Your task to perform on an android device: turn on showing notifications on the lock screen Image 0: 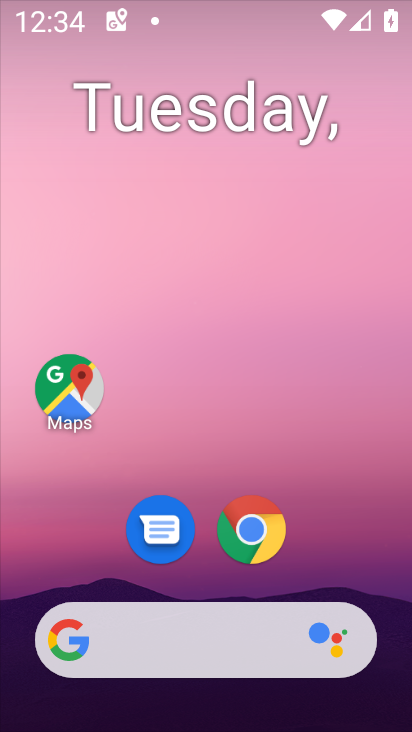
Step 0: drag from (203, 578) to (271, 84)
Your task to perform on an android device: turn on showing notifications on the lock screen Image 1: 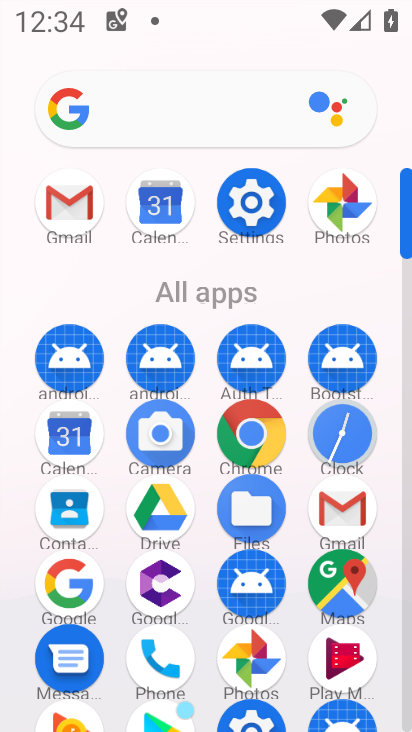
Step 1: click (245, 200)
Your task to perform on an android device: turn on showing notifications on the lock screen Image 2: 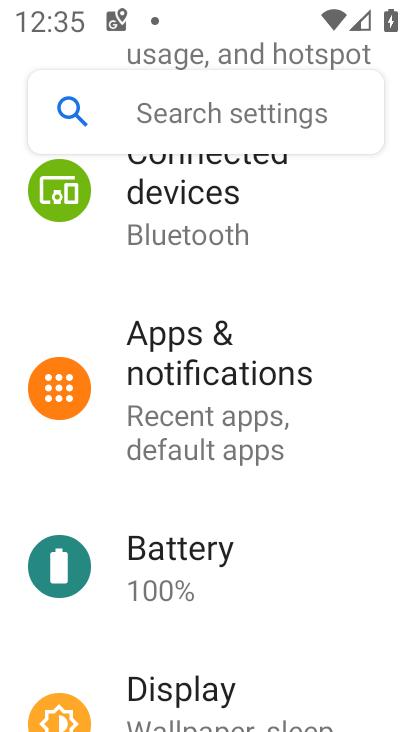
Step 2: click (201, 399)
Your task to perform on an android device: turn on showing notifications on the lock screen Image 3: 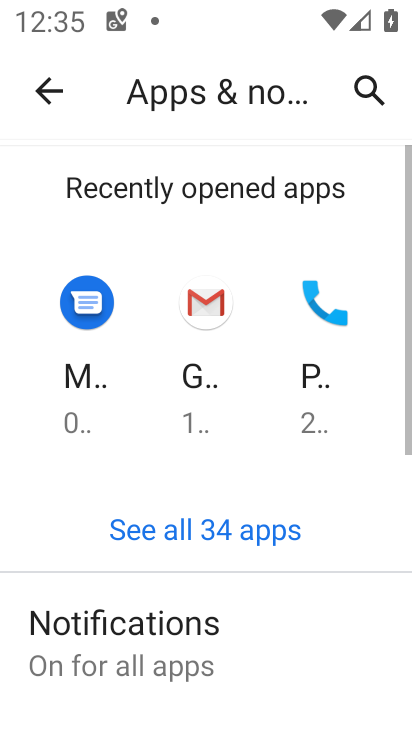
Step 3: drag from (186, 678) to (225, 120)
Your task to perform on an android device: turn on showing notifications on the lock screen Image 4: 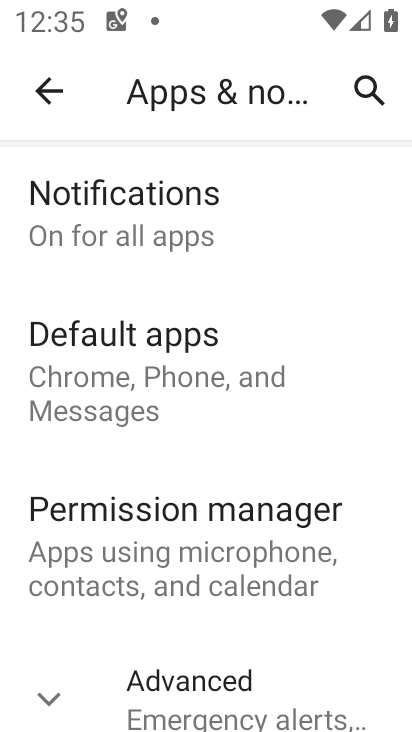
Step 4: drag from (202, 192) to (136, 718)
Your task to perform on an android device: turn on showing notifications on the lock screen Image 5: 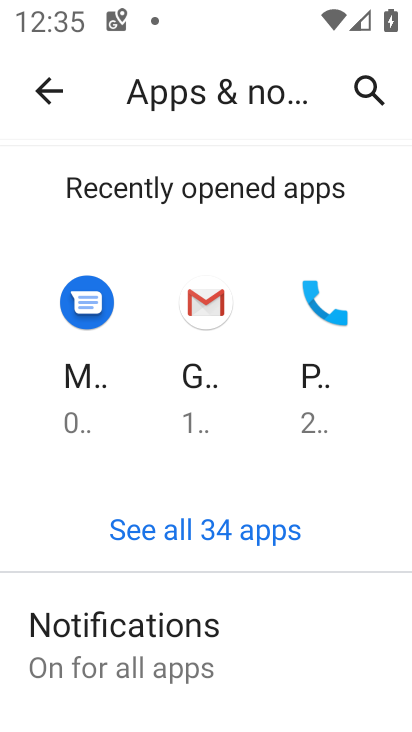
Step 5: click (99, 627)
Your task to perform on an android device: turn on showing notifications on the lock screen Image 6: 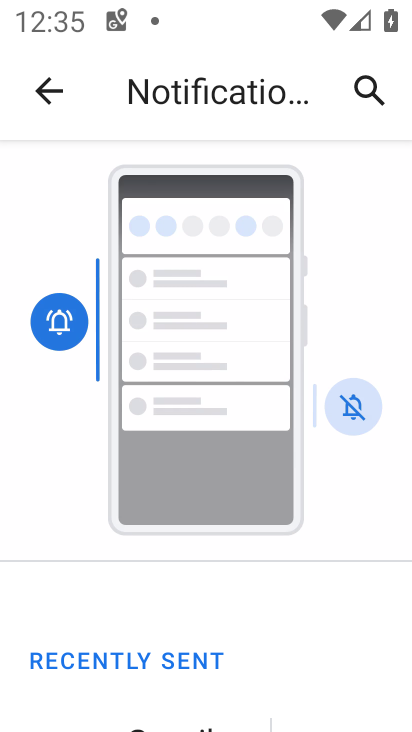
Step 6: drag from (190, 652) to (250, 144)
Your task to perform on an android device: turn on showing notifications on the lock screen Image 7: 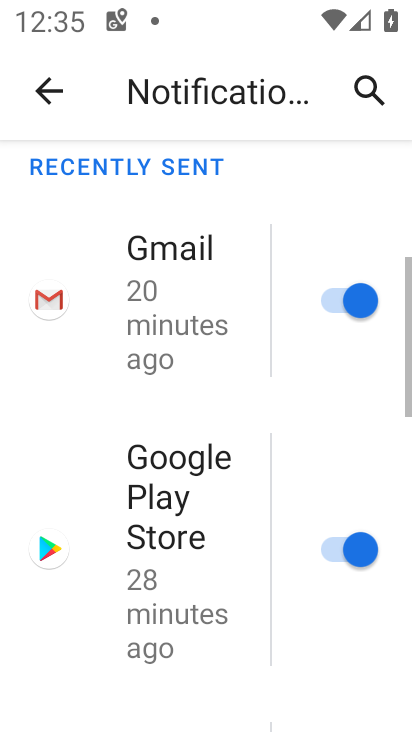
Step 7: drag from (156, 689) to (214, 107)
Your task to perform on an android device: turn on showing notifications on the lock screen Image 8: 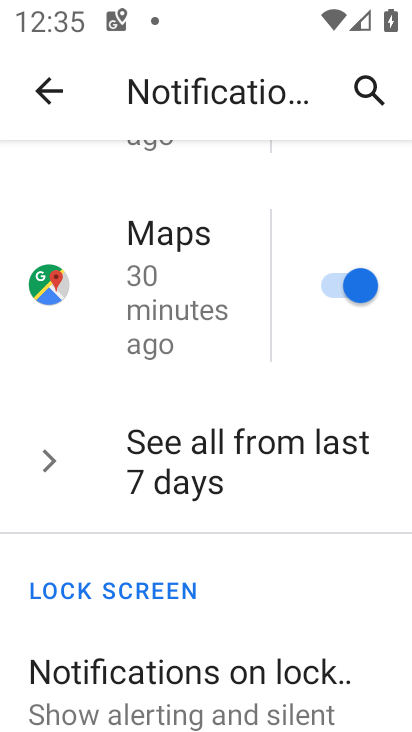
Step 8: click (201, 666)
Your task to perform on an android device: turn on showing notifications on the lock screen Image 9: 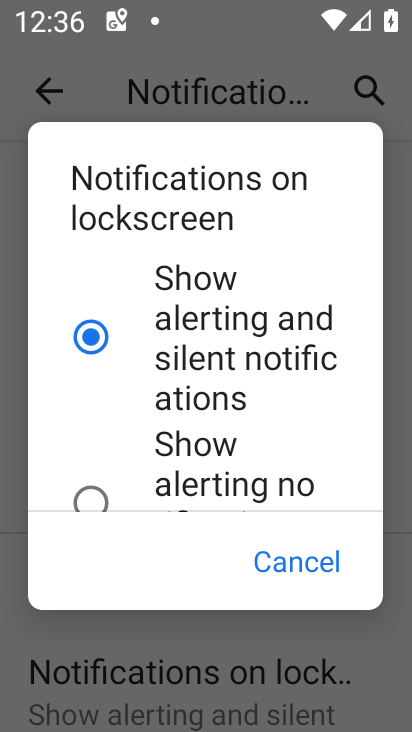
Step 9: drag from (167, 446) to (166, 158)
Your task to perform on an android device: turn on showing notifications on the lock screen Image 10: 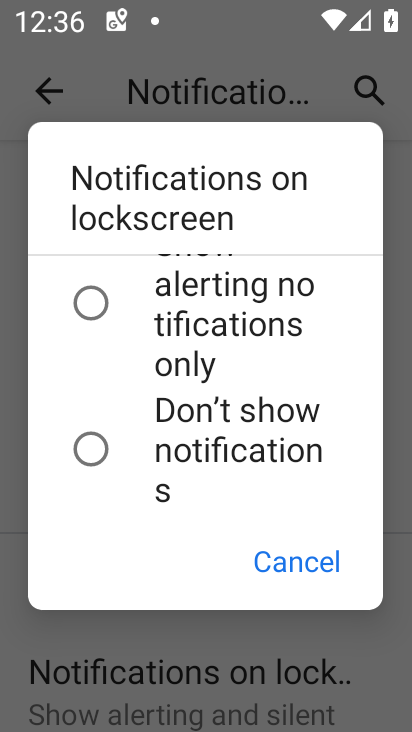
Step 10: drag from (186, 298) to (178, 568)
Your task to perform on an android device: turn on showing notifications on the lock screen Image 11: 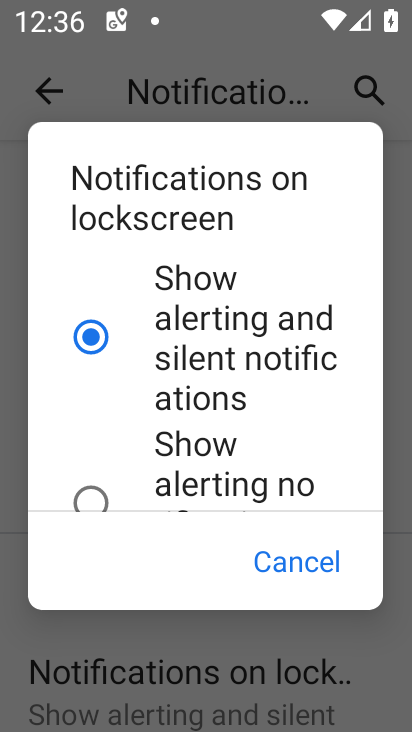
Step 11: click (93, 339)
Your task to perform on an android device: turn on showing notifications on the lock screen Image 12: 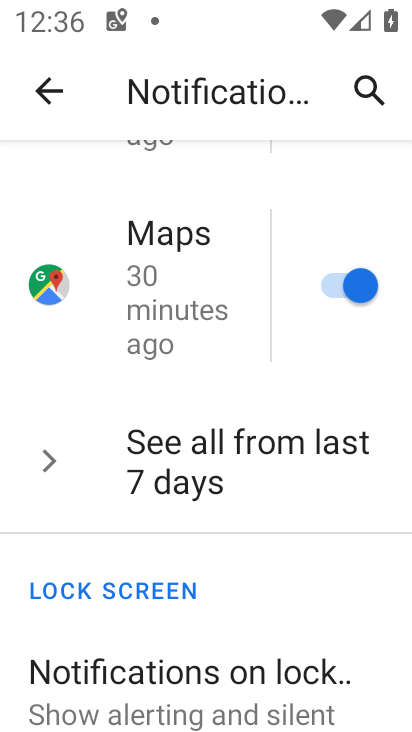
Step 12: task complete